Your task to perform on an android device: Open settings Image 0: 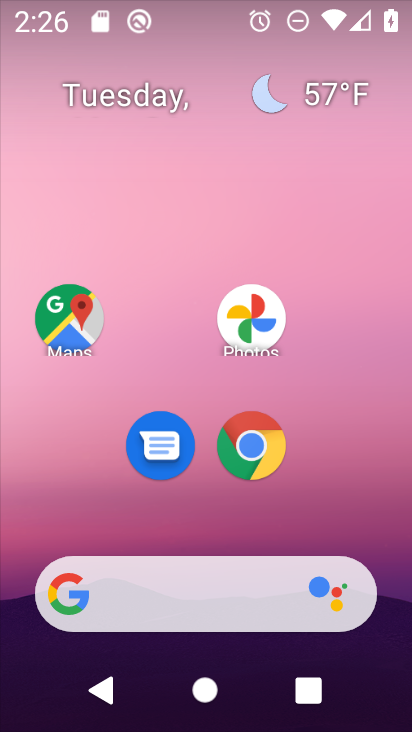
Step 0: drag from (371, 532) to (359, 174)
Your task to perform on an android device: Open settings Image 1: 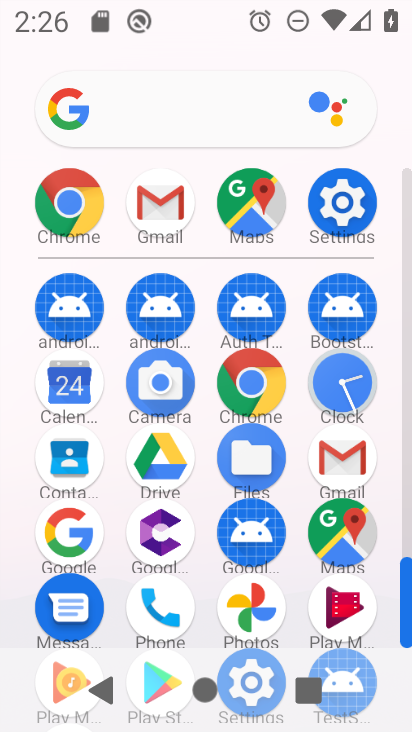
Step 1: click (357, 211)
Your task to perform on an android device: Open settings Image 2: 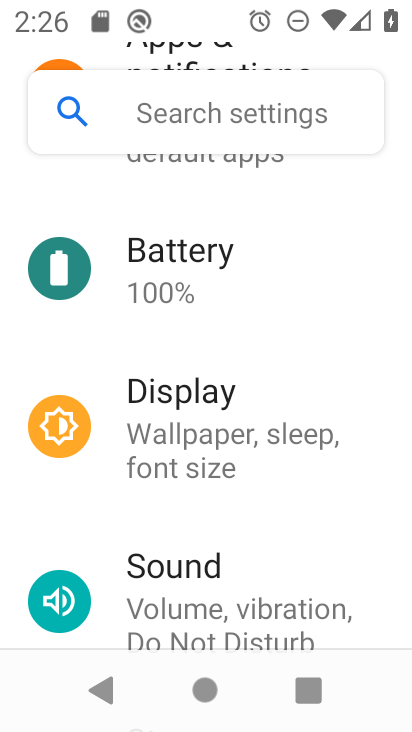
Step 2: task complete